Your task to perform on an android device: Open Google Maps and go to "Timeline" Image 0: 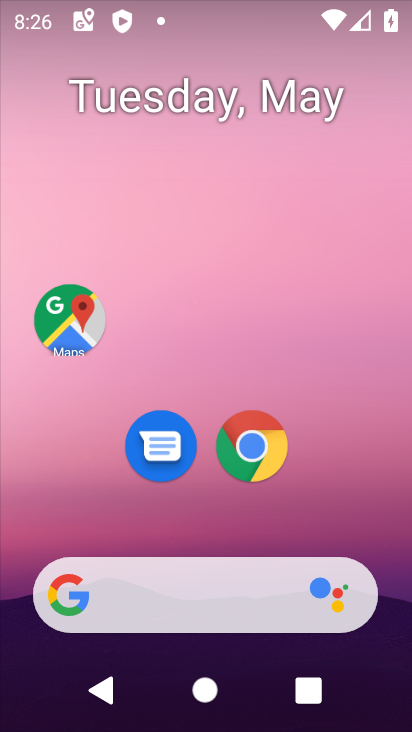
Step 0: click (74, 319)
Your task to perform on an android device: Open Google Maps and go to "Timeline" Image 1: 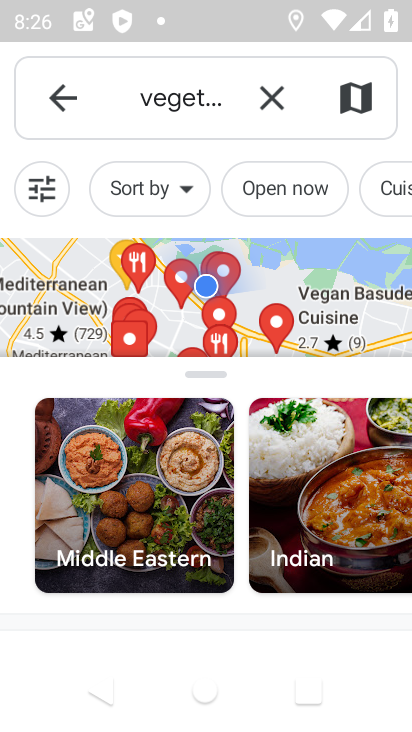
Step 1: click (268, 101)
Your task to perform on an android device: Open Google Maps and go to "Timeline" Image 2: 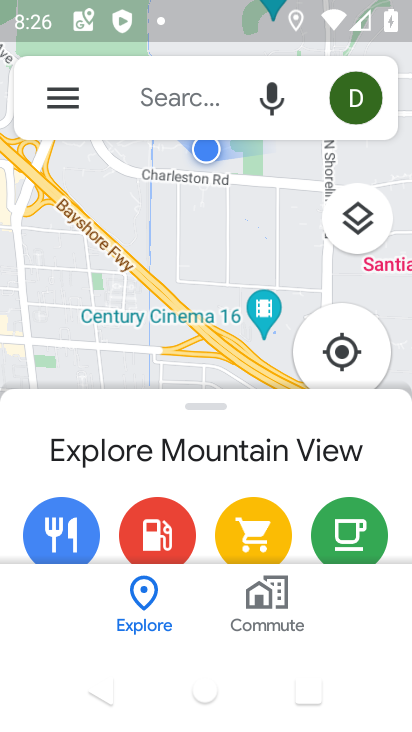
Step 2: click (70, 102)
Your task to perform on an android device: Open Google Maps and go to "Timeline" Image 3: 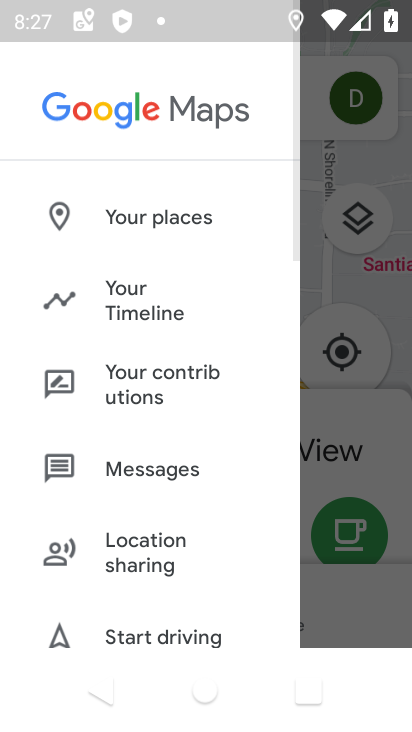
Step 3: click (152, 311)
Your task to perform on an android device: Open Google Maps and go to "Timeline" Image 4: 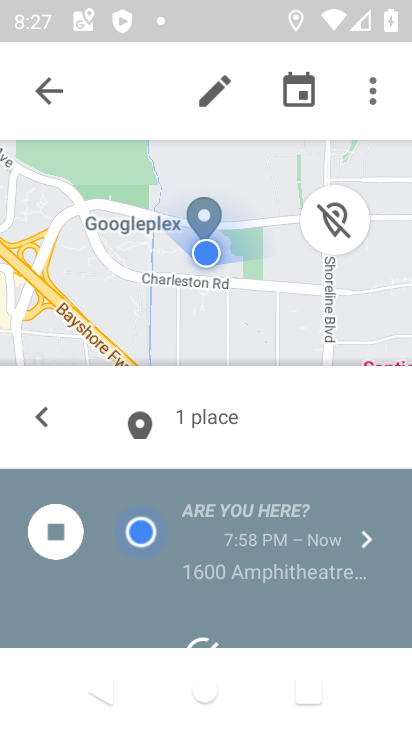
Step 4: task complete